Your task to perform on an android device: turn off sleep mode Image 0: 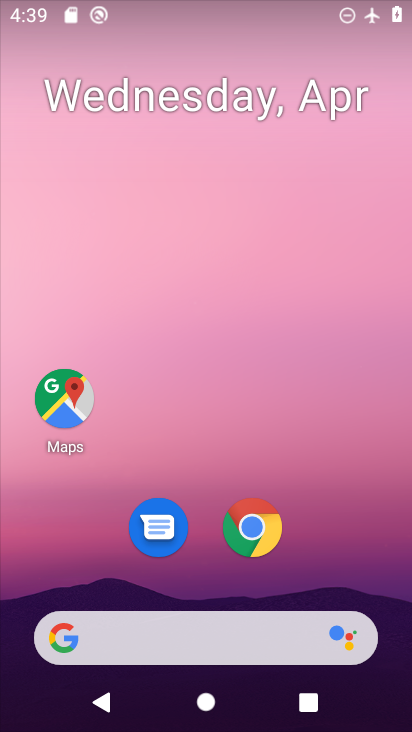
Step 0: drag from (387, 585) to (409, 53)
Your task to perform on an android device: turn off sleep mode Image 1: 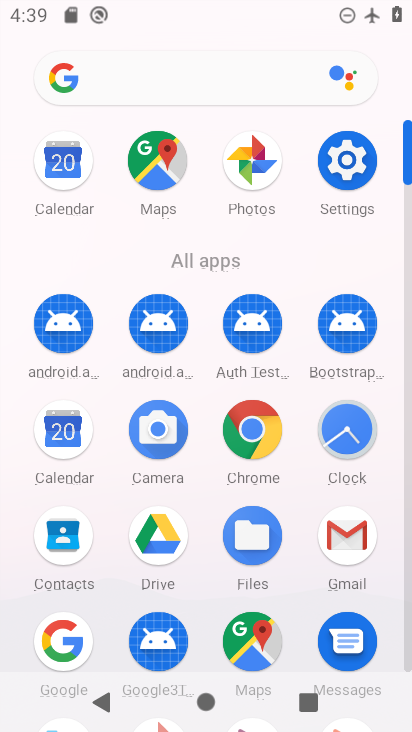
Step 1: click (344, 162)
Your task to perform on an android device: turn off sleep mode Image 2: 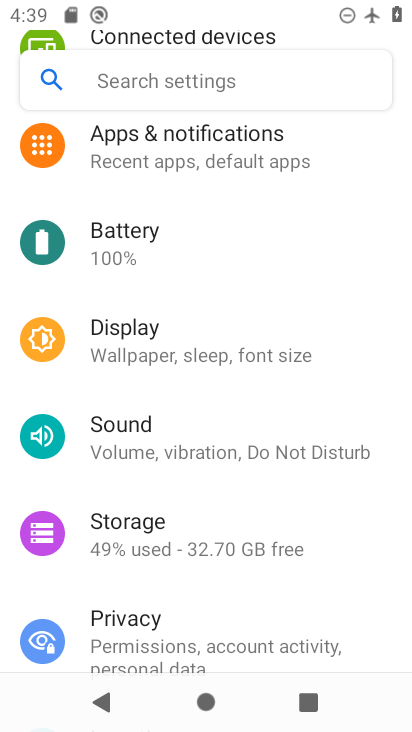
Step 2: click (130, 361)
Your task to perform on an android device: turn off sleep mode Image 3: 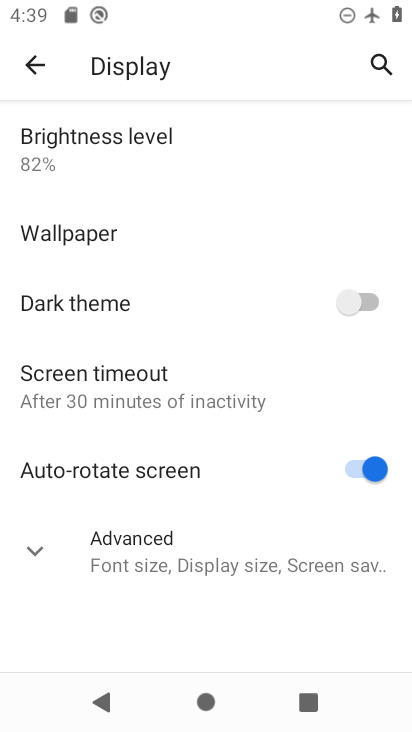
Step 3: click (34, 556)
Your task to perform on an android device: turn off sleep mode Image 4: 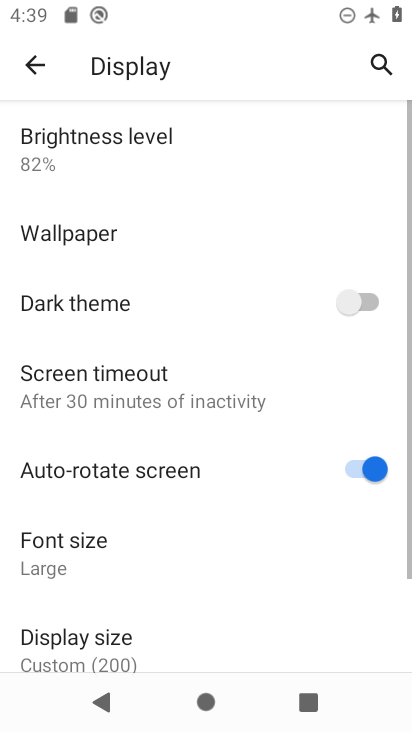
Step 4: task complete